Your task to perform on an android device: allow notifications from all sites in the chrome app Image 0: 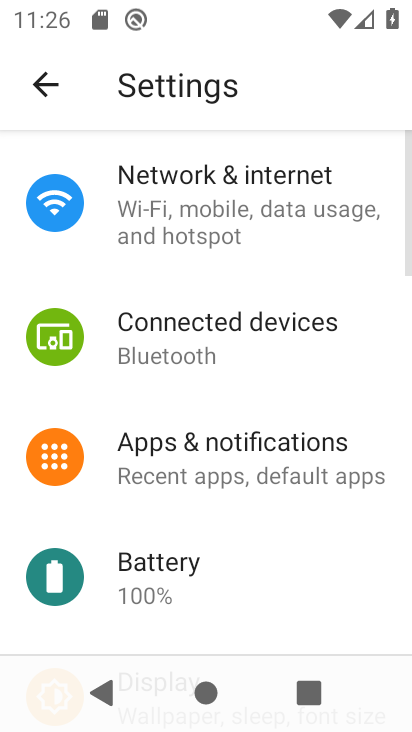
Step 0: press home button
Your task to perform on an android device: allow notifications from all sites in the chrome app Image 1: 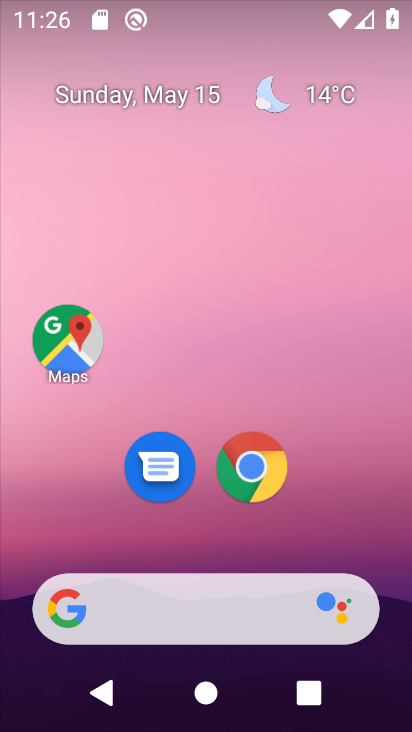
Step 1: drag from (206, 542) to (214, 60)
Your task to perform on an android device: allow notifications from all sites in the chrome app Image 2: 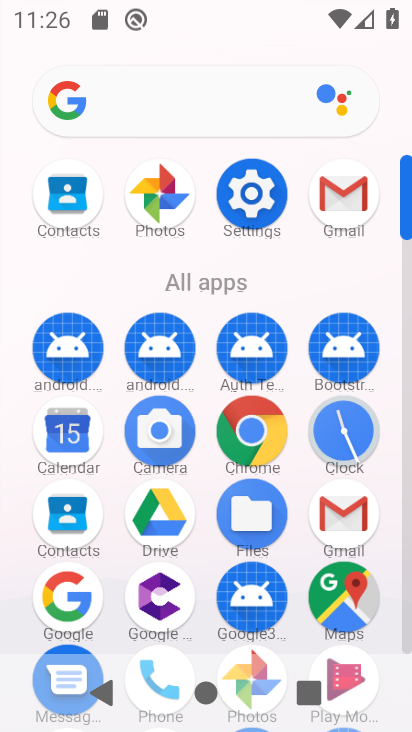
Step 2: click (246, 427)
Your task to perform on an android device: allow notifications from all sites in the chrome app Image 3: 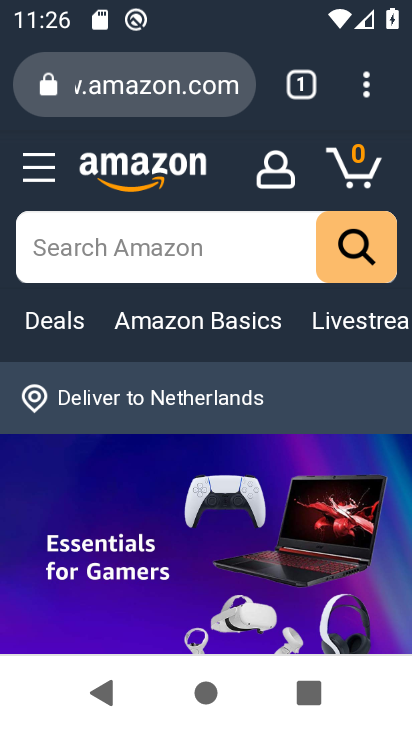
Step 3: click (367, 82)
Your task to perform on an android device: allow notifications from all sites in the chrome app Image 4: 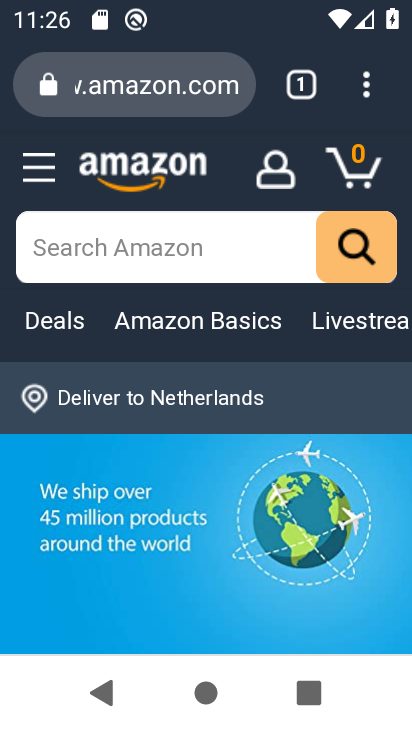
Step 4: click (366, 78)
Your task to perform on an android device: allow notifications from all sites in the chrome app Image 5: 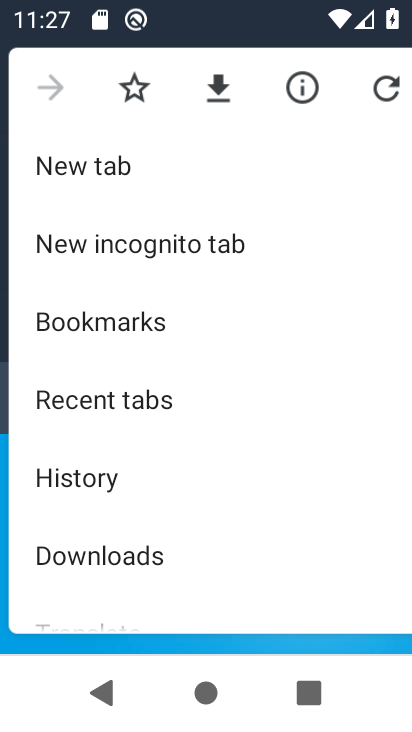
Step 5: drag from (201, 565) to (229, 135)
Your task to perform on an android device: allow notifications from all sites in the chrome app Image 6: 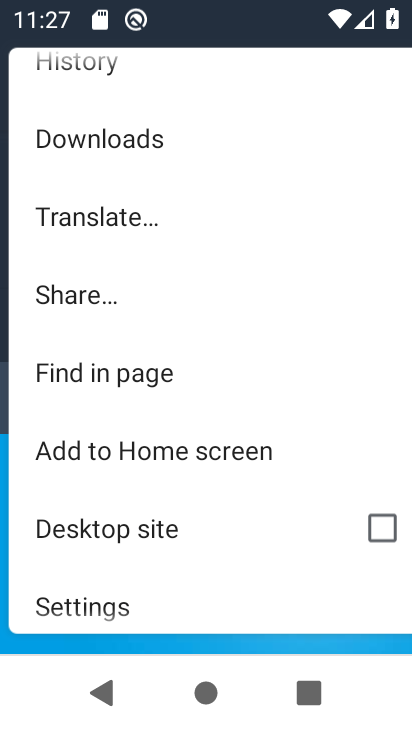
Step 6: click (144, 607)
Your task to perform on an android device: allow notifications from all sites in the chrome app Image 7: 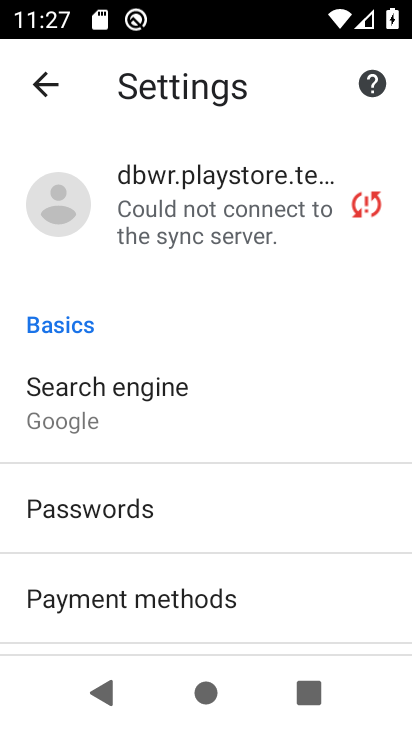
Step 7: drag from (259, 599) to (258, 393)
Your task to perform on an android device: allow notifications from all sites in the chrome app Image 8: 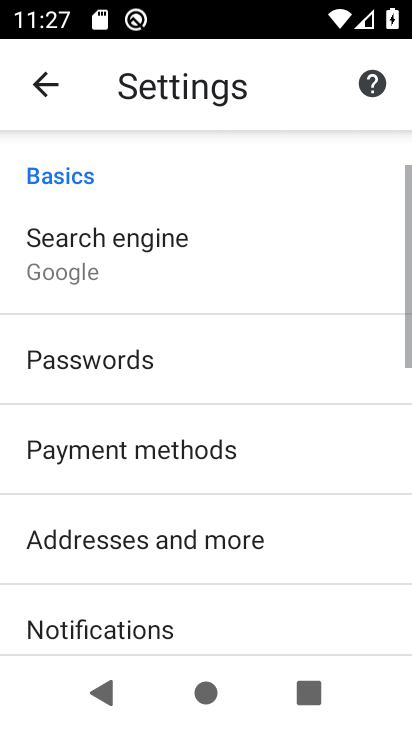
Step 8: drag from (258, 264) to (261, 158)
Your task to perform on an android device: allow notifications from all sites in the chrome app Image 9: 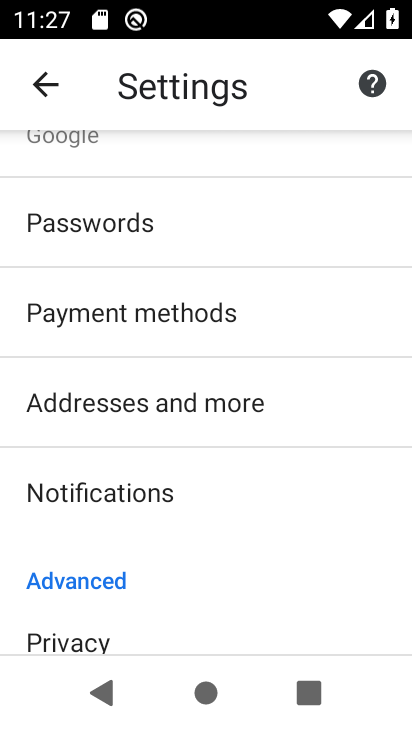
Step 9: drag from (195, 611) to (235, 206)
Your task to perform on an android device: allow notifications from all sites in the chrome app Image 10: 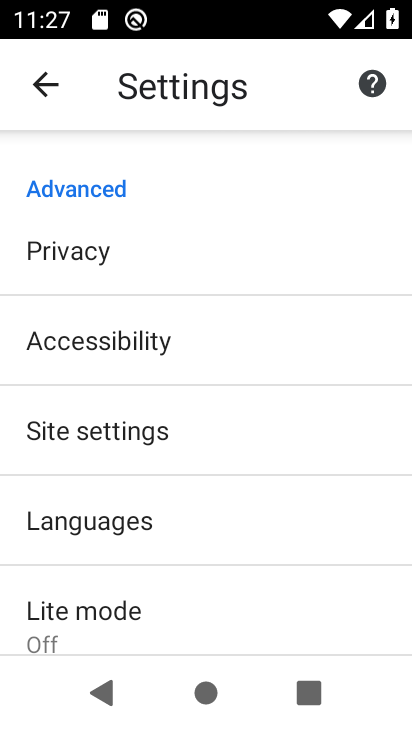
Step 10: click (176, 426)
Your task to perform on an android device: allow notifications from all sites in the chrome app Image 11: 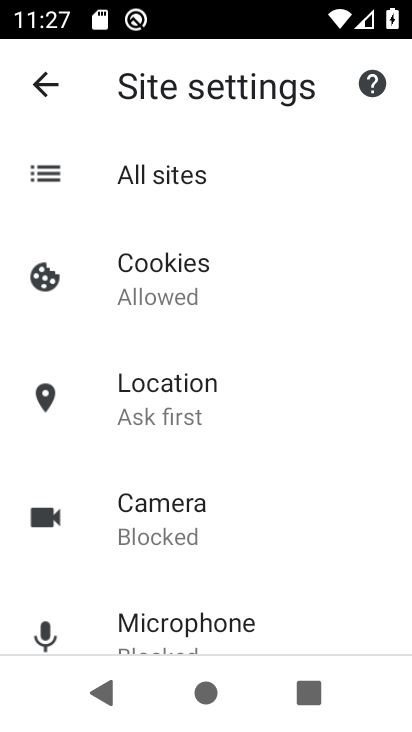
Step 11: click (144, 181)
Your task to perform on an android device: allow notifications from all sites in the chrome app Image 12: 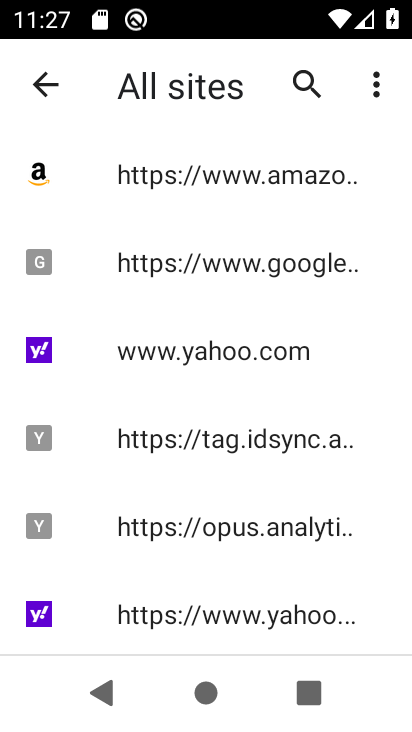
Step 12: click (126, 176)
Your task to perform on an android device: allow notifications from all sites in the chrome app Image 13: 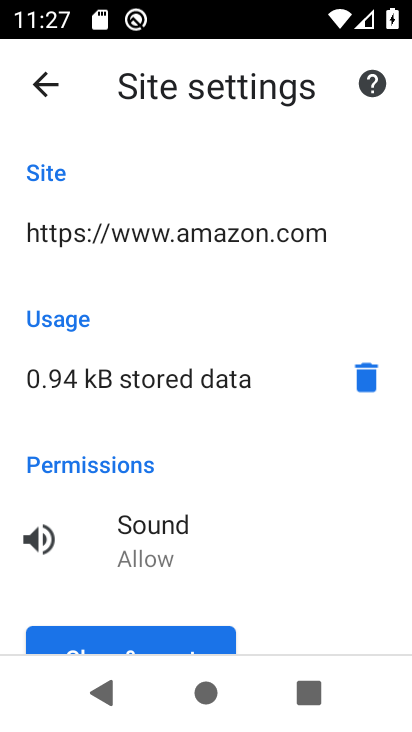
Step 13: click (40, 100)
Your task to perform on an android device: allow notifications from all sites in the chrome app Image 14: 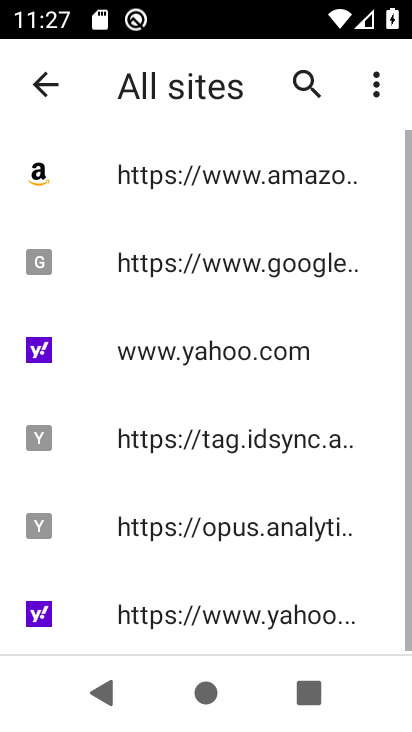
Step 14: task complete